Your task to perform on an android device: Turn off the flashlight Image 0: 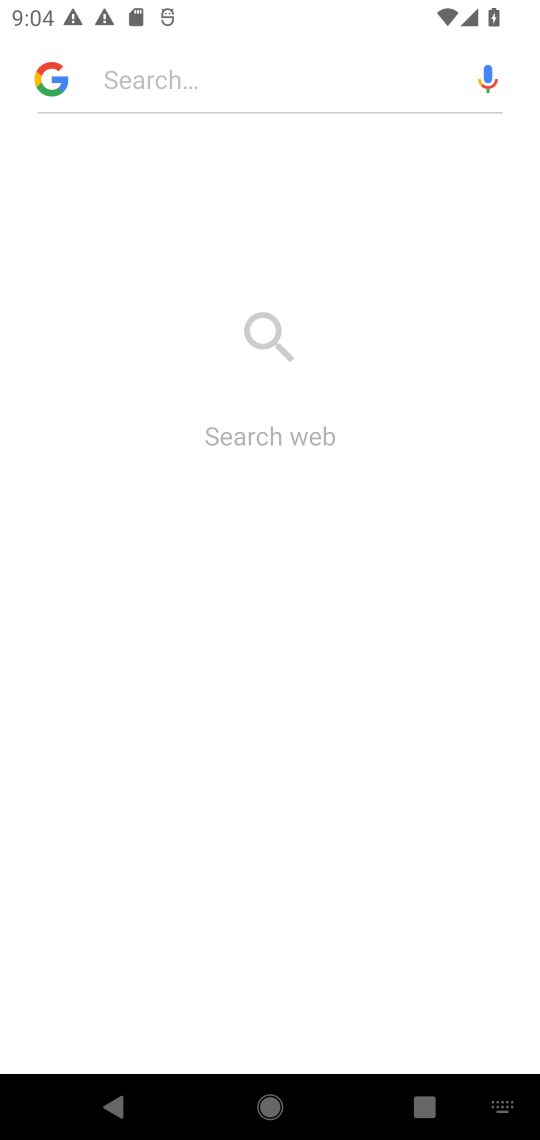
Step 0: press home button
Your task to perform on an android device: Turn off the flashlight Image 1: 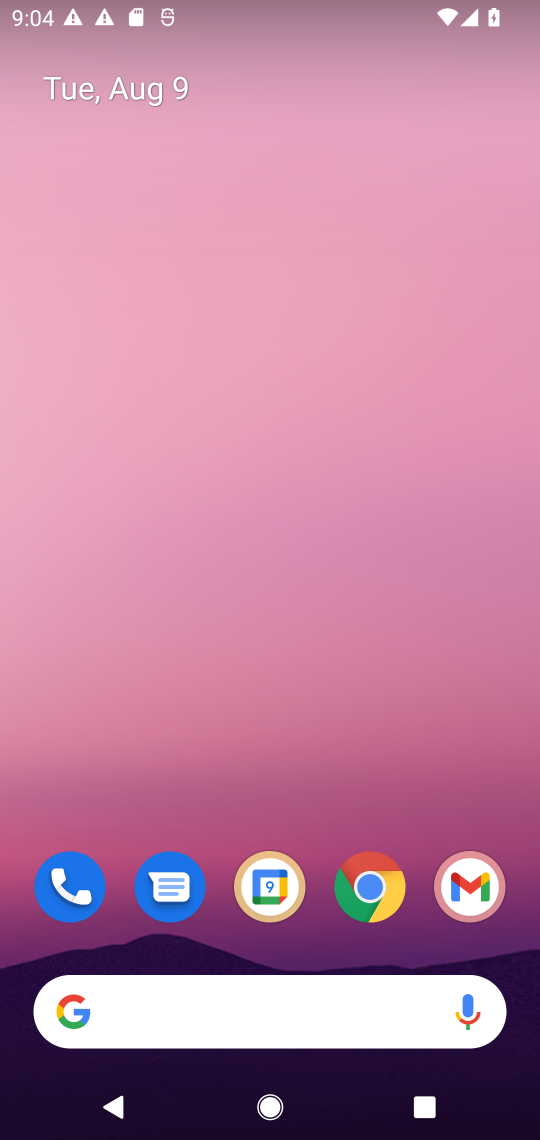
Step 1: drag from (287, 795) to (251, 398)
Your task to perform on an android device: Turn off the flashlight Image 2: 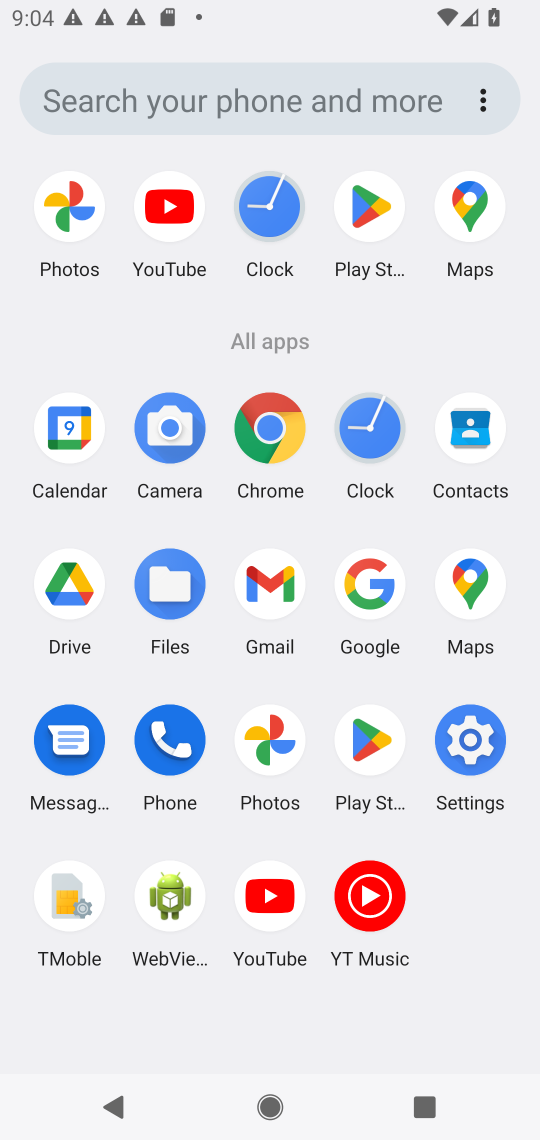
Step 2: click (446, 747)
Your task to perform on an android device: Turn off the flashlight Image 3: 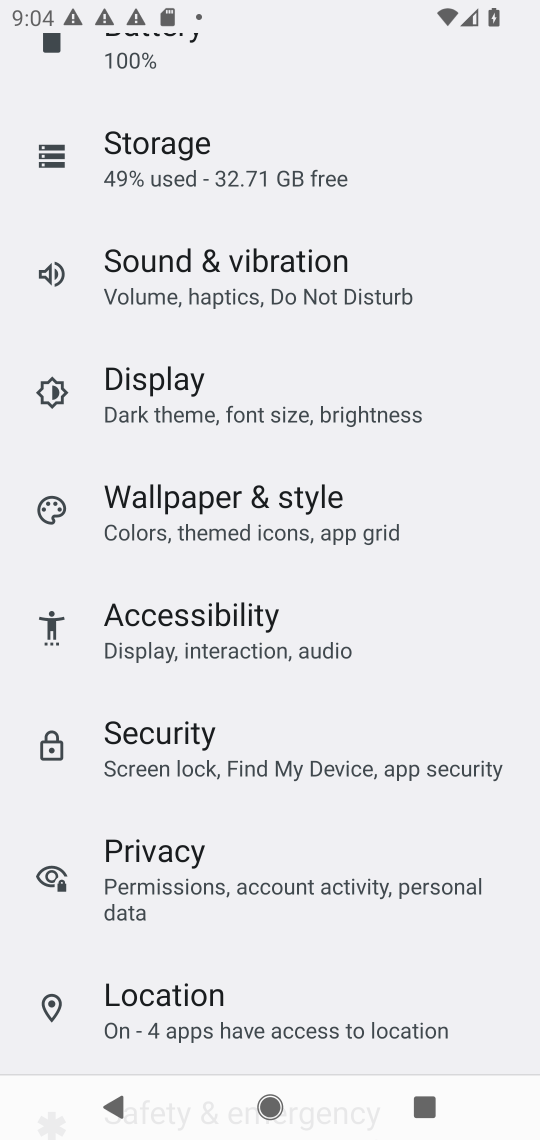
Step 3: task complete